Your task to perform on an android device: Go to Google maps Image 0: 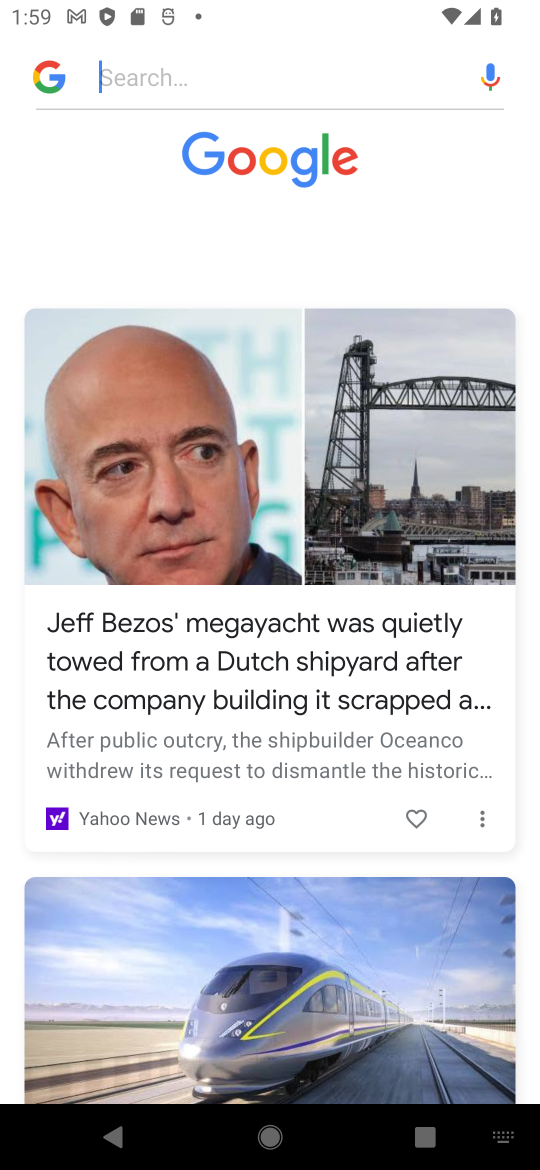
Step 0: press home button
Your task to perform on an android device: Go to Google maps Image 1: 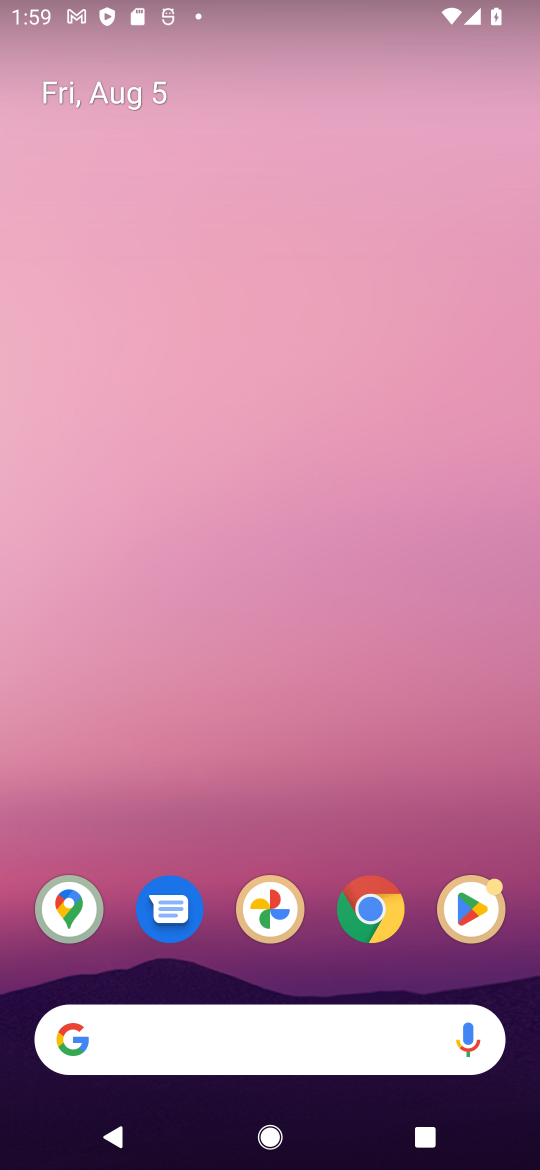
Step 1: click (76, 920)
Your task to perform on an android device: Go to Google maps Image 2: 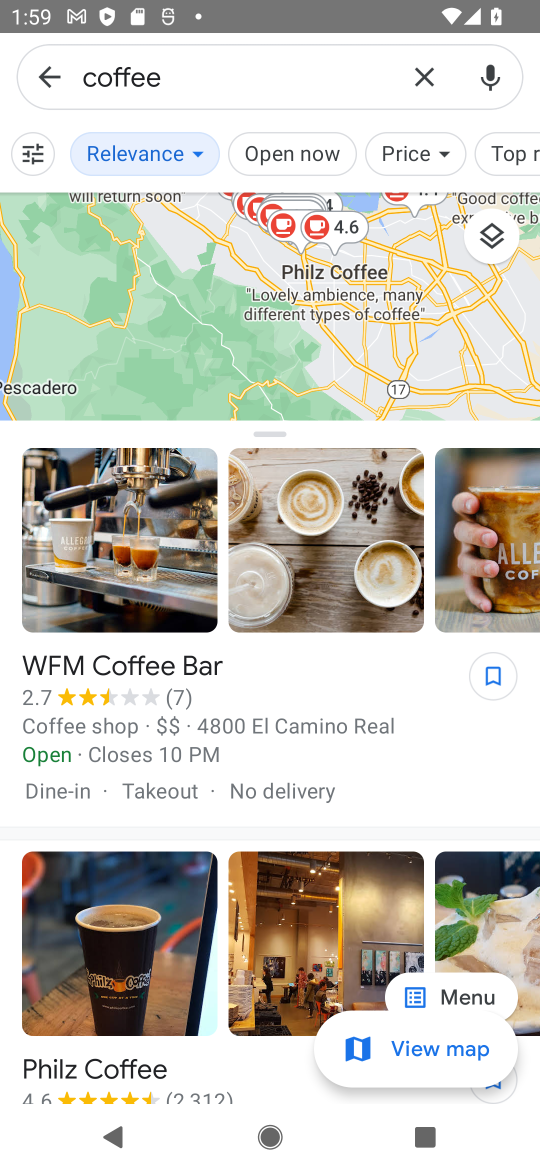
Step 2: task complete